Your task to perform on an android device: delete the emails in spam in the gmail app Image 0: 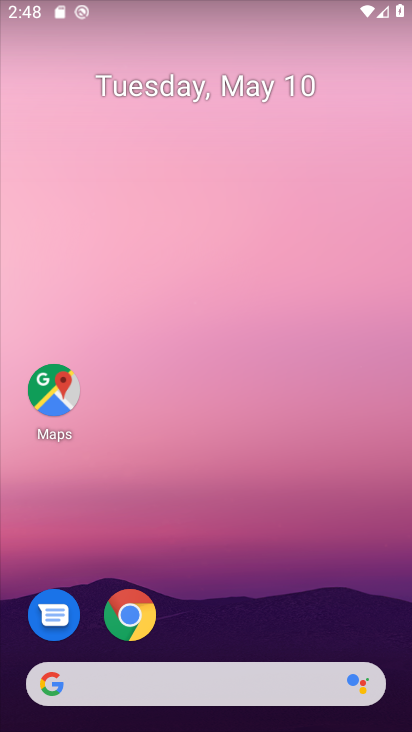
Step 0: drag from (302, 563) to (302, 227)
Your task to perform on an android device: delete the emails in spam in the gmail app Image 1: 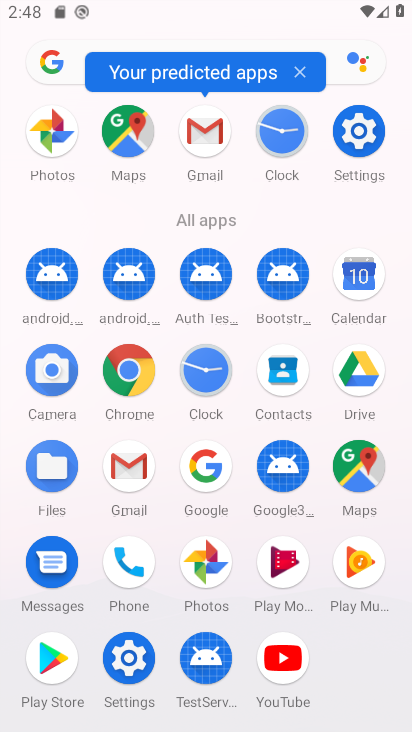
Step 1: click (123, 477)
Your task to perform on an android device: delete the emails in spam in the gmail app Image 2: 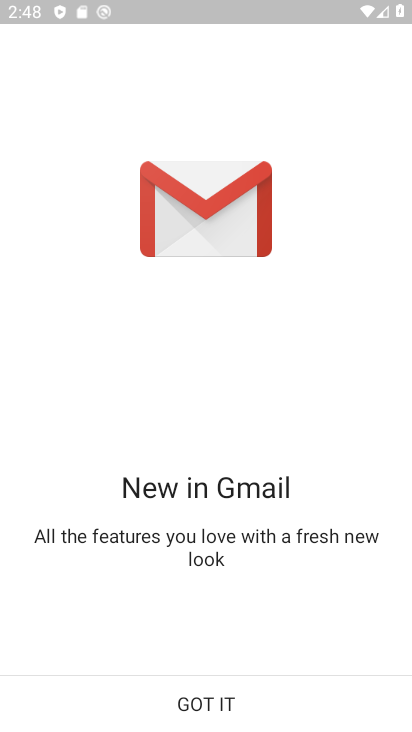
Step 2: click (205, 696)
Your task to perform on an android device: delete the emails in spam in the gmail app Image 3: 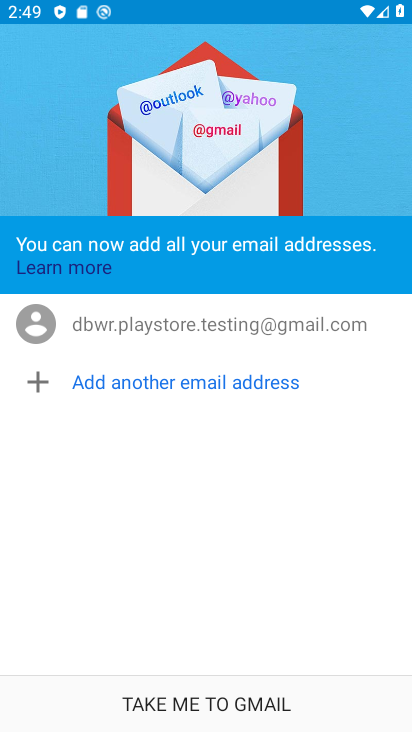
Step 3: click (205, 696)
Your task to perform on an android device: delete the emails in spam in the gmail app Image 4: 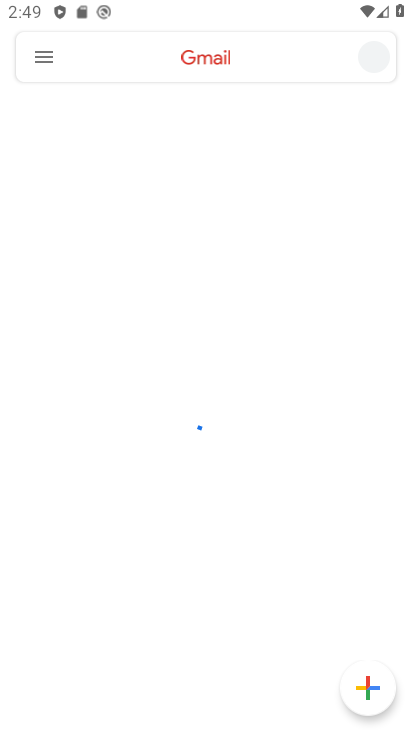
Step 4: click (45, 59)
Your task to perform on an android device: delete the emails in spam in the gmail app Image 5: 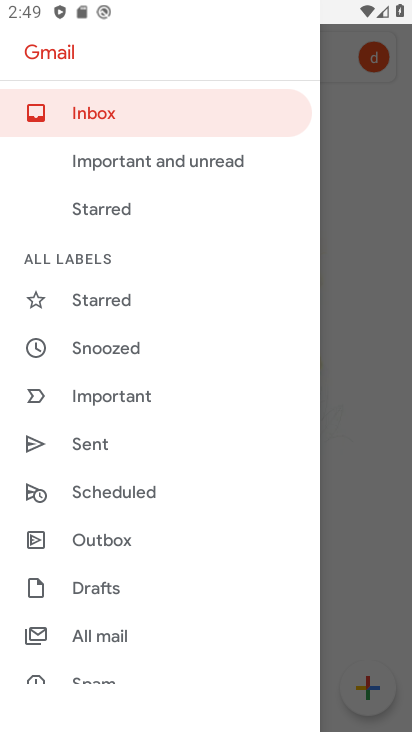
Step 5: drag from (111, 628) to (111, 438)
Your task to perform on an android device: delete the emails in spam in the gmail app Image 6: 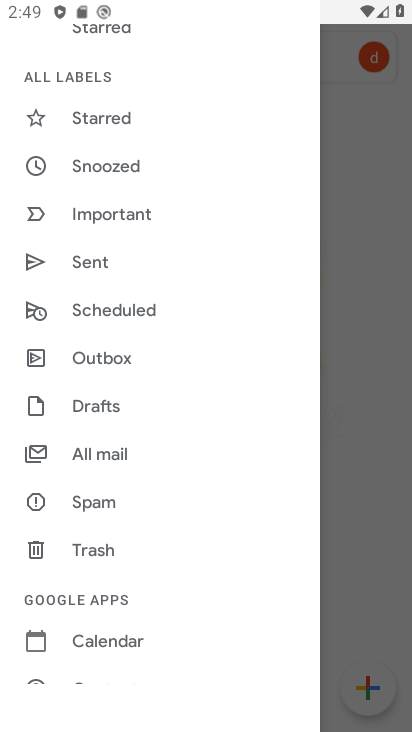
Step 6: click (105, 507)
Your task to perform on an android device: delete the emails in spam in the gmail app Image 7: 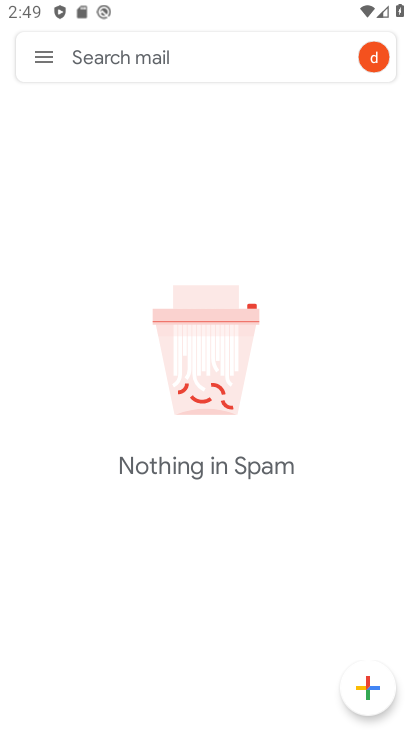
Step 7: task complete